Your task to perform on an android device: Open Google Image 0: 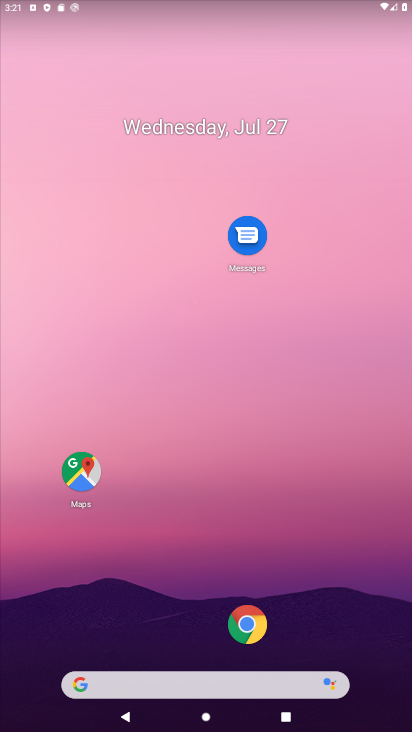
Step 0: click (204, 682)
Your task to perform on an android device: Open Google Image 1: 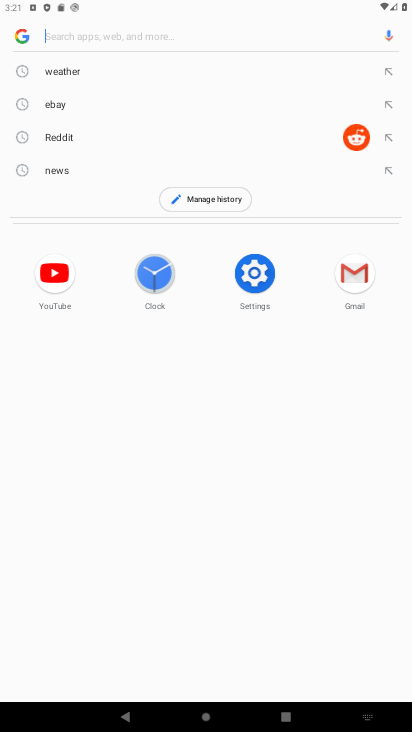
Step 1: task complete